Your task to perform on an android device: turn off priority inbox in the gmail app Image 0: 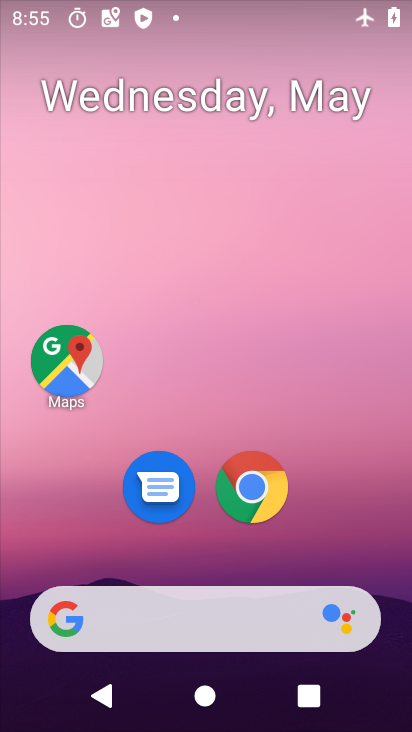
Step 0: drag from (196, 580) to (200, 259)
Your task to perform on an android device: turn off priority inbox in the gmail app Image 1: 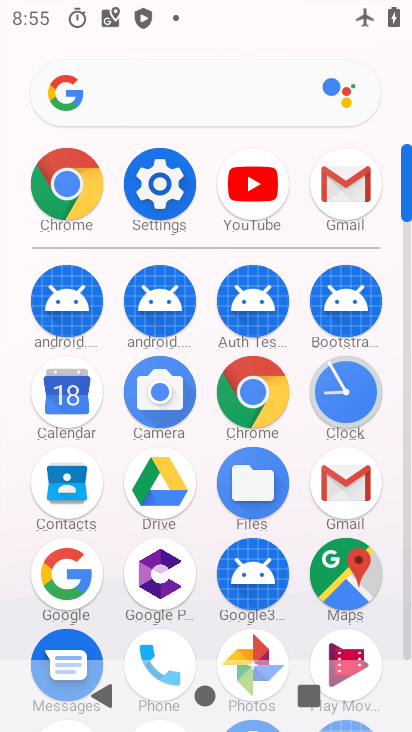
Step 1: click (328, 204)
Your task to perform on an android device: turn off priority inbox in the gmail app Image 2: 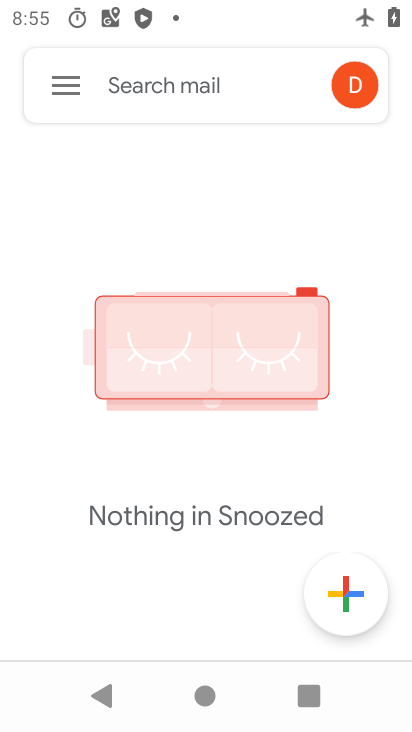
Step 2: click (75, 83)
Your task to perform on an android device: turn off priority inbox in the gmail app Image 3: 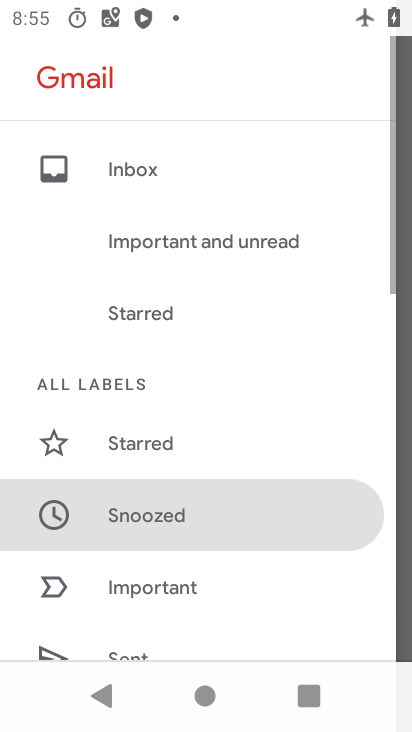
Step 3: drag from (193, 604) to (241, 314)
Your task to perform on an android device: turn off priority inbox in the gmail app Image 4: 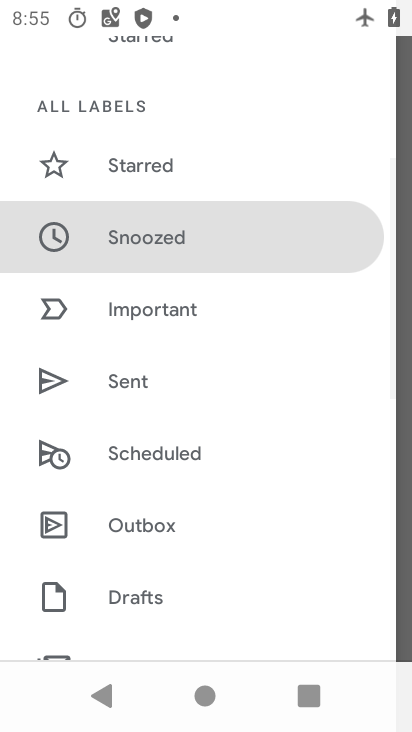
Step 4: drag from (227, 569) to (231, 332)
Your task to perform on an android device: turn off priority inbox in the gmail app Image 5: 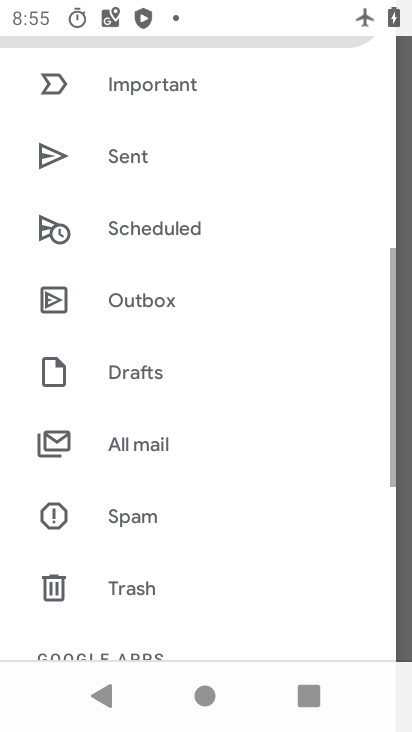
Step 5: drag from (215, 500) to (202, 353)
Your task to perform on an android device: turn off priority inbox in the gmail app Image 6: 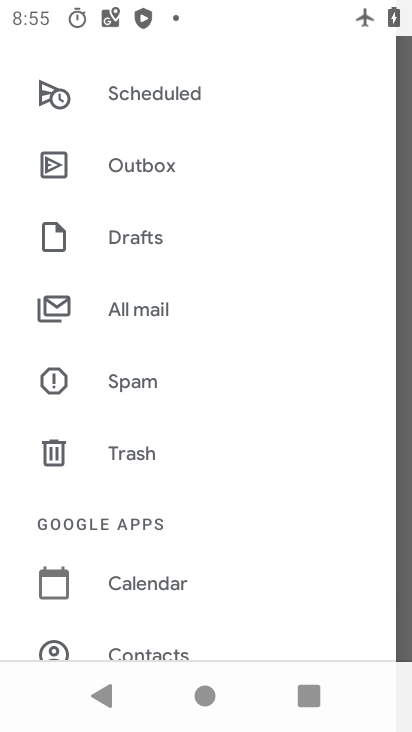
Step 6: drag from (171, 620) to (209, 332)
Your task to perform on an android device: turn off priority inbox in the gmail app Image 7: 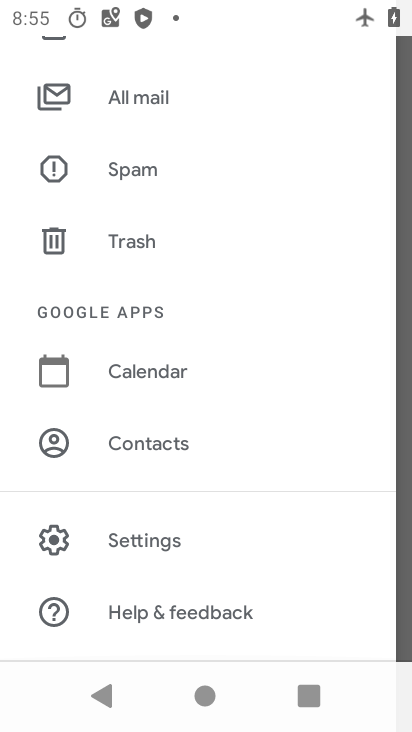
Step 7: click (168, 534)
Your task to perform on an android device: turn off priority inbox in the gmail app Image 8: 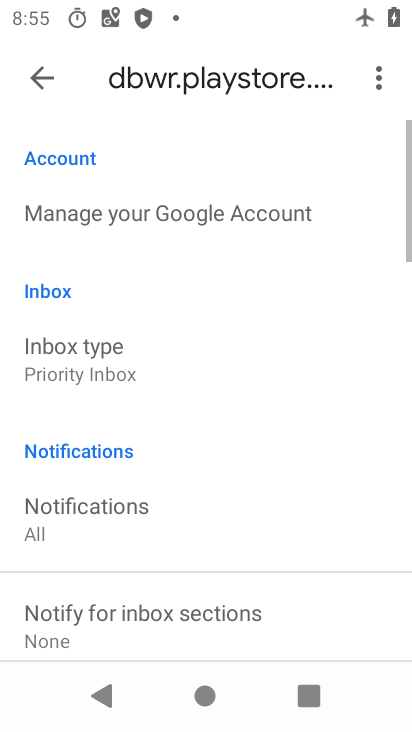
Step 8: drag from (176, 489) to (190, 292)
Your task to perform on an android device: turn off priority inbox in the gmail app Image 9: 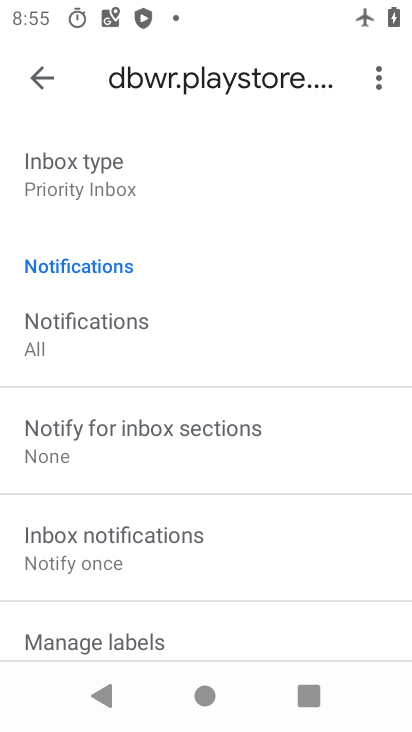
Step 9: click (127, 185)
Your task to perform on an android device: turn off priority inbox in the gmail app Image 10: 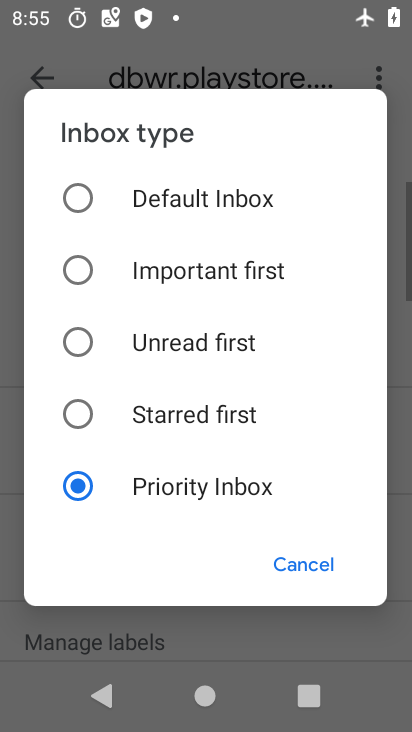
Step 10: click (127, 185)
Your task to perform on an android device: turn off priority inbox in the gmail app Image 11: 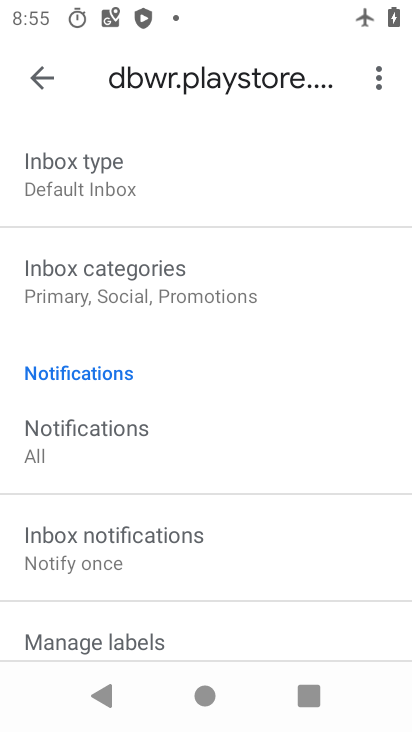
Step 11: task complete